Your task to perform on an android device: stop showing notifications on the lock screen Image 0: 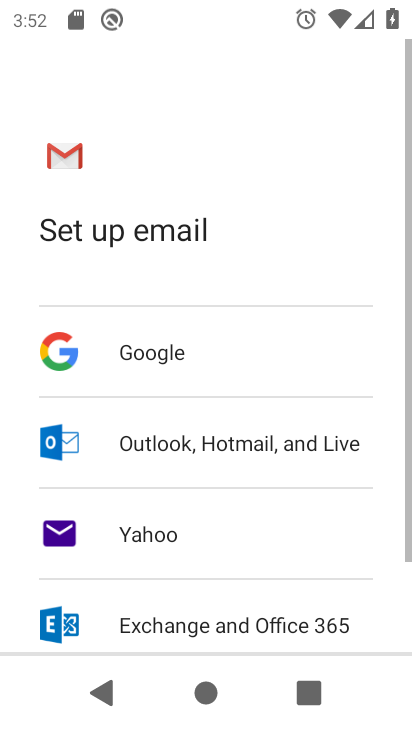
Step 0: press home button
Your task to perform on an android device: stop showing notifications on the lock screen Image 1: 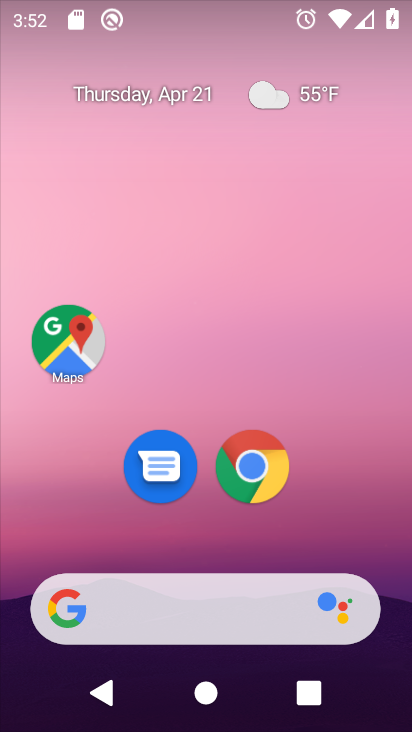
Step 1: drag from (229, 560) to (250, 61)
Your task to perform on an android device: stop showing notifications on the lock screen Image 2: 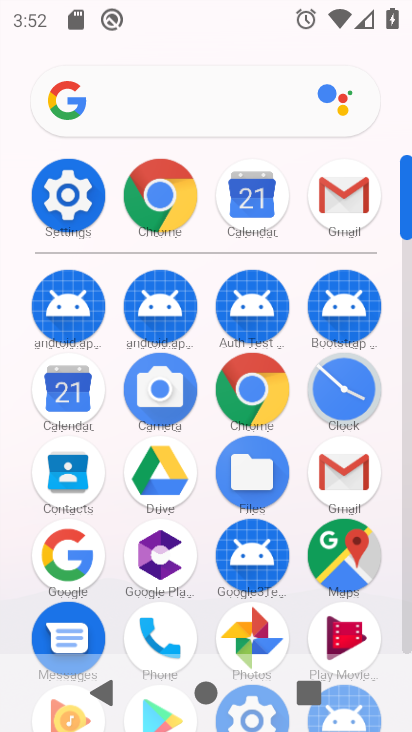
Step 2: click (73, 193)
Your task to perform on an android device: stop showing notifications on the lock screen Image 3: 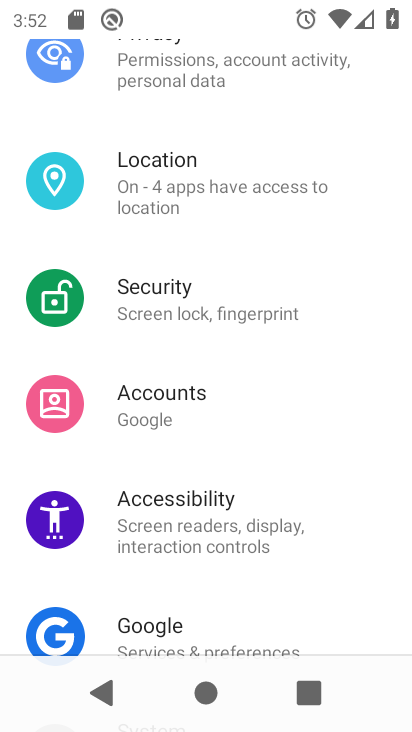
Step 3: drag from (276, 134) to (305, 731)
Your task to perform on an android device: stop showing notifications on the lock screen Image 4: 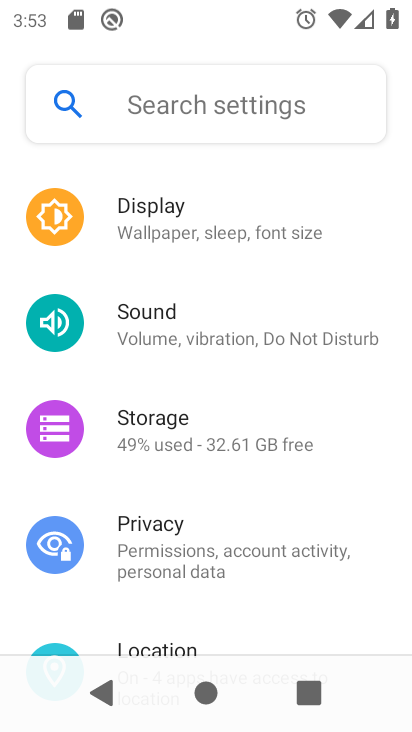
Step 4: drag from (301, 175) to (268, 722)
Your task to perform on an android device: stop showing notifications on the lock screen Image 5: 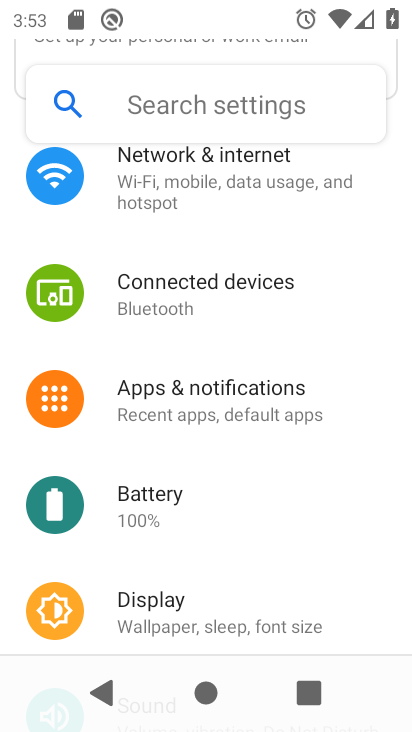
Step 5: click (290, 390)
Your task to perform on an android device: stop showing notifications on the lock screen Image 6: 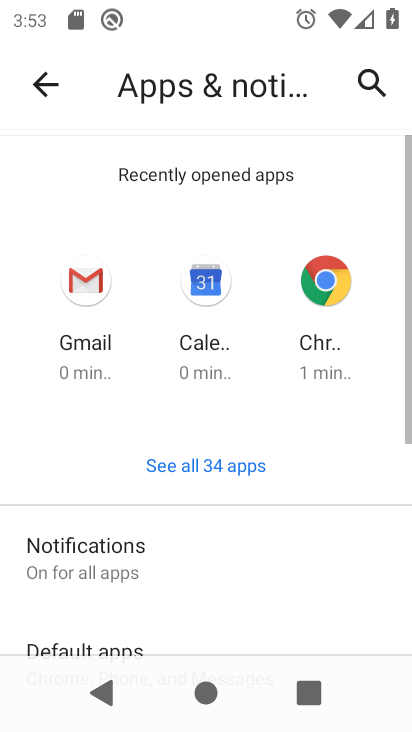
Step 6: drag from (266, 577) to (287, 193)
Your task to perform on an android device: stop showing notifications on the lock screen Image 7: 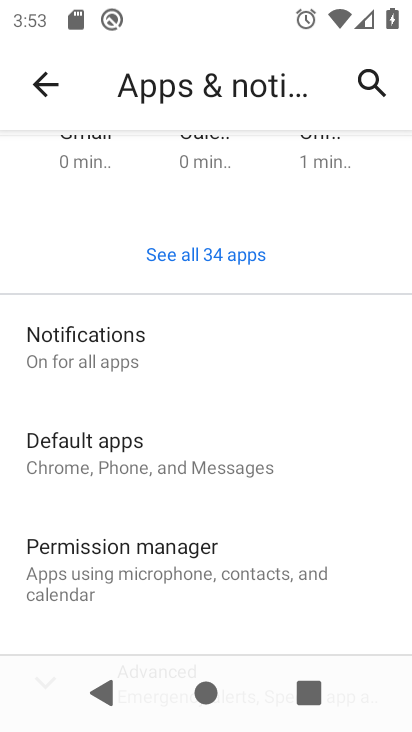
Step 7: click (137, 345)
Your task to perform on an android device: stop showing notifications on the lock screen Image 8: 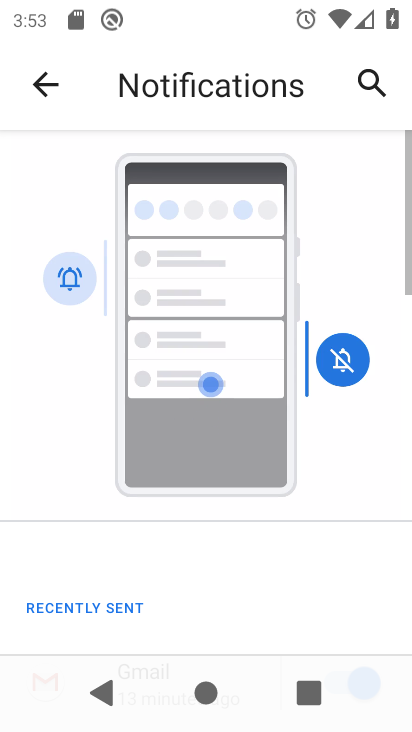
Step 8: drag from (180, 418) to (211, 85)
Your task to perform on an android device: stop showing notifications on the lock screen Image 9: 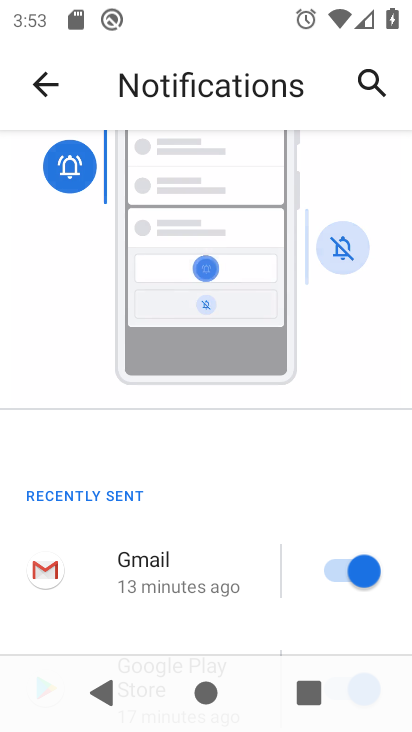
Step 9: drag from (216, 570) to (266, 61)
Your task to perform on an android device: stop showing notifications on the lock screen Image 10: 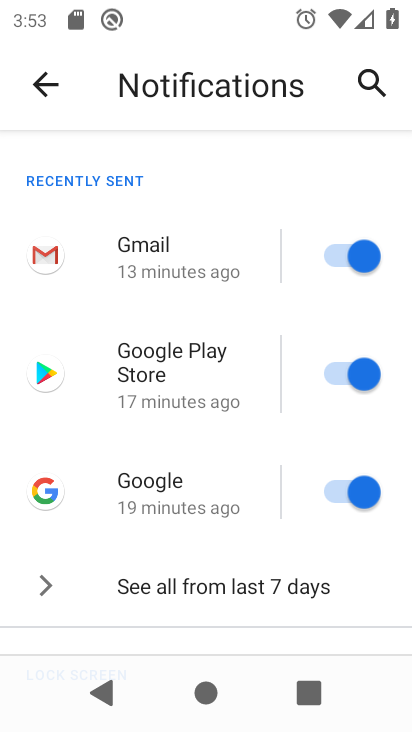
Step 10: drag from (194, 498) to (230, 150)
Your task to perform on an android device: stop showing notifications on the lock screen Image 11: 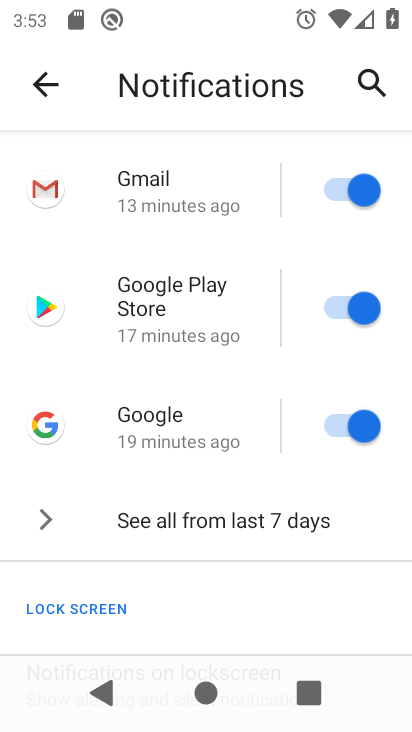
Step 11: drag from (180, 574) to (191, 74)
Your task to perform on an android device: stop showing notifications on the lock screen Image 12: 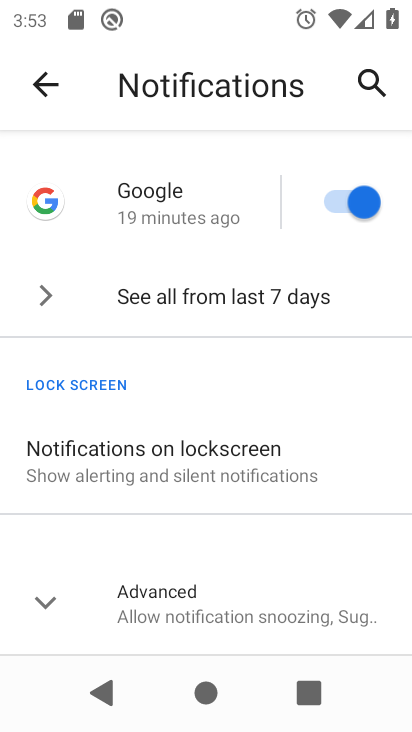
Step 12: click (179, 464)
Your task to perform on an android device: stop showing notifications on the lock screen Image 13: 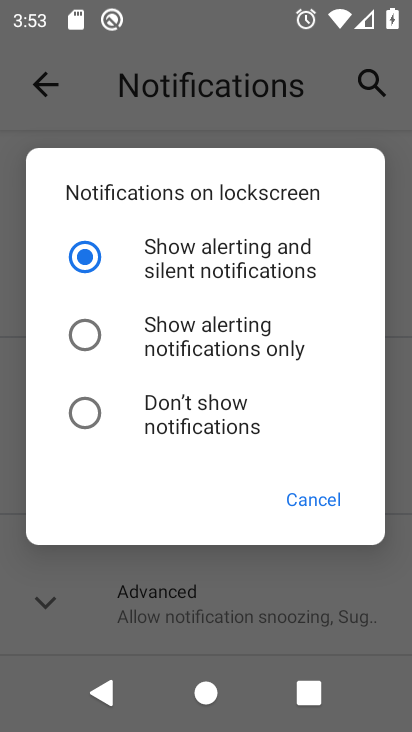
Step 13: click (87, 428)
Your task to perform on an android device: stop showing notifications on the lock screen Image 14: 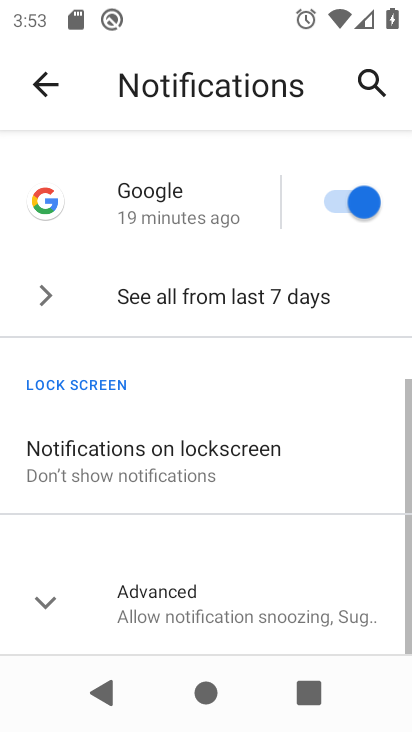
Step 14: task complete